Your task to perform on an android device: Open the phone app and click the voicemail tab. Image 0: 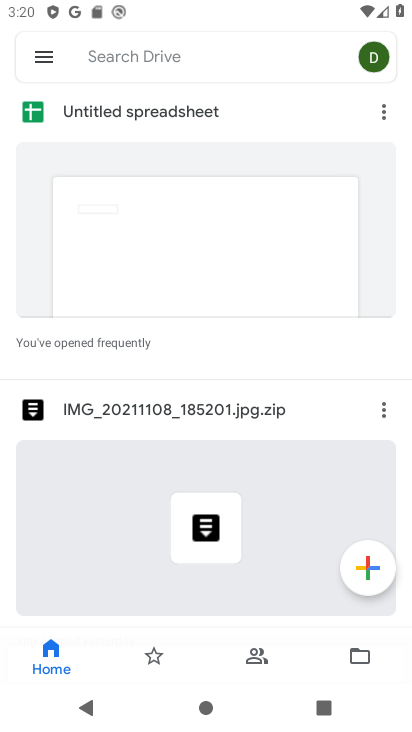
Step 0: press back button
Your task to perform on an android device: Open the phone app and click the voicemail tab. Image 1: 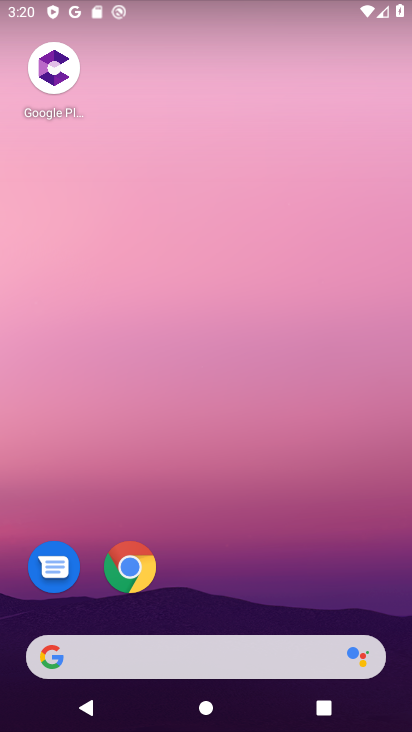
Step 1: drag from (236, 648) to (226, 249)
Your task to perform on an android device: Open the phone app and click the voicemail tab. Image 2: 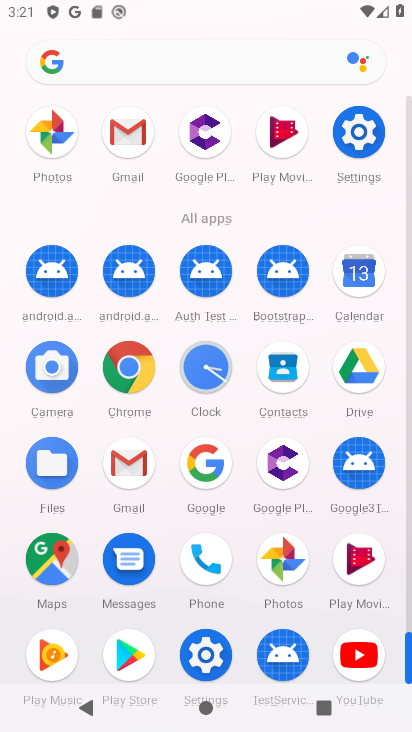
Step 2: click (195, 563)
Your task to perform on an android device: Open the phone app and click the voicemail tab. Image 3: 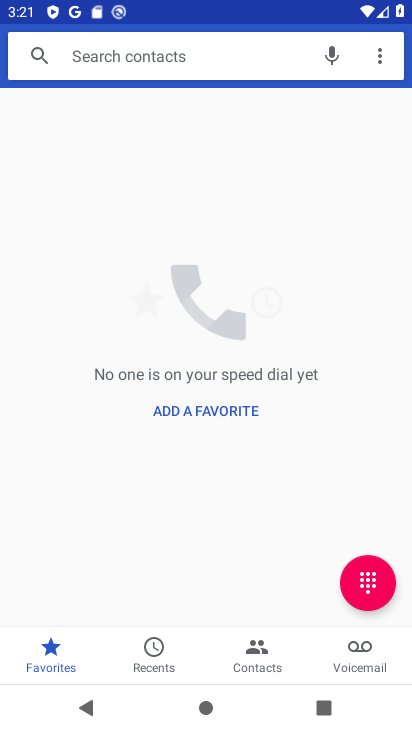
Step 3: click (359, 643)
Your task to perform on an android device: Open the phone app and click the voicemail tab. Image 4: 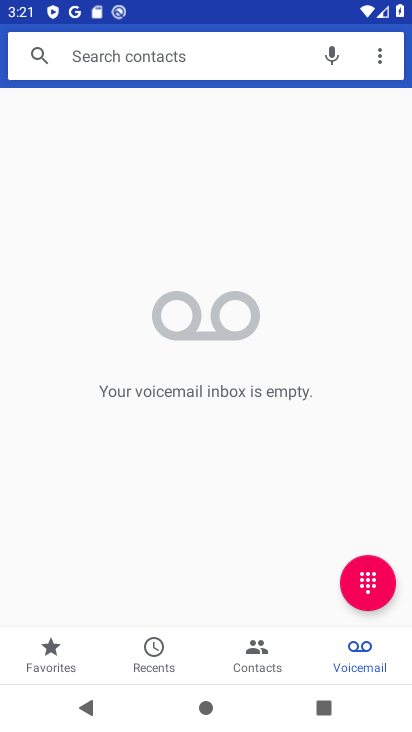
Step 4: task complete